Your task to perform on an android device: find snoozed emails in the gmail app Image 0: 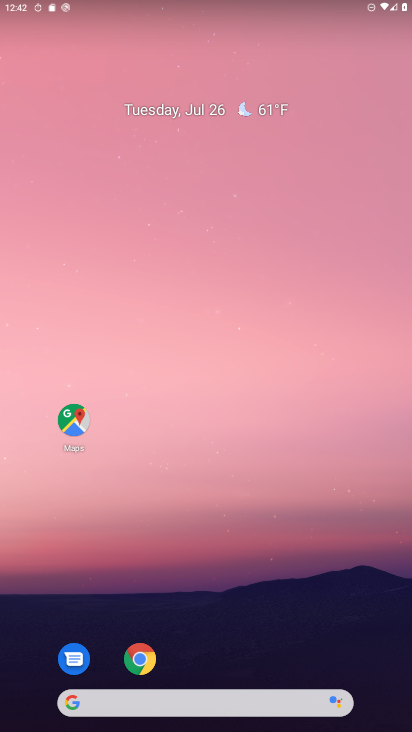
Step 0: drag from (158, 436) to (247, 135)
Your task to perform on an android device: find snoozed emails in the gmail app Image 1: 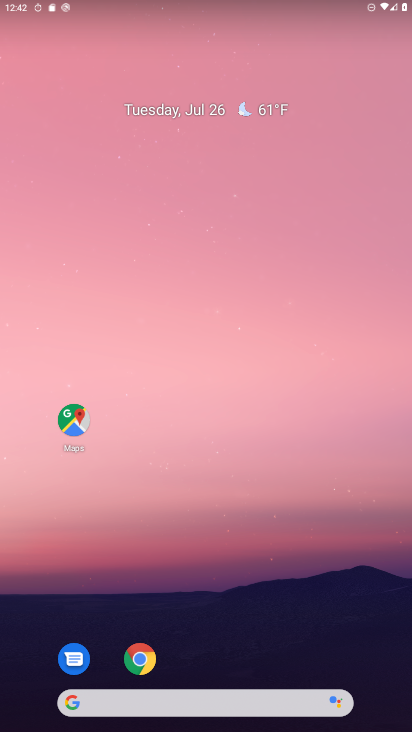
Step 1: drag from (21, 705) to (244, 1)
Your task to perform on an android device: find snoozed emails in the gmail app Image 2: 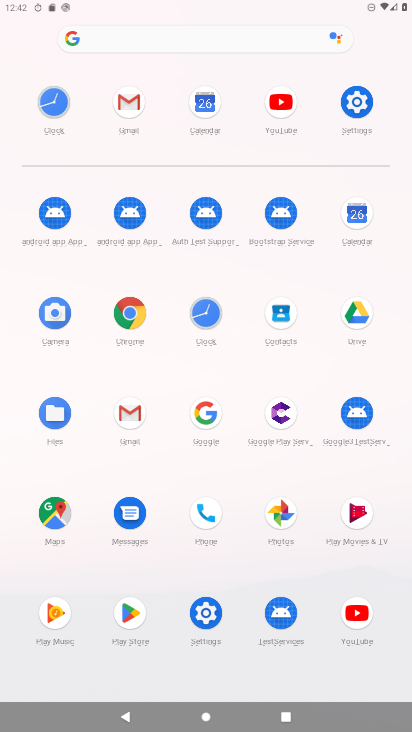
Step 2: click (218, 617)
Your task to perform on an android device: find snoozed emails in the gmail app Image 3: 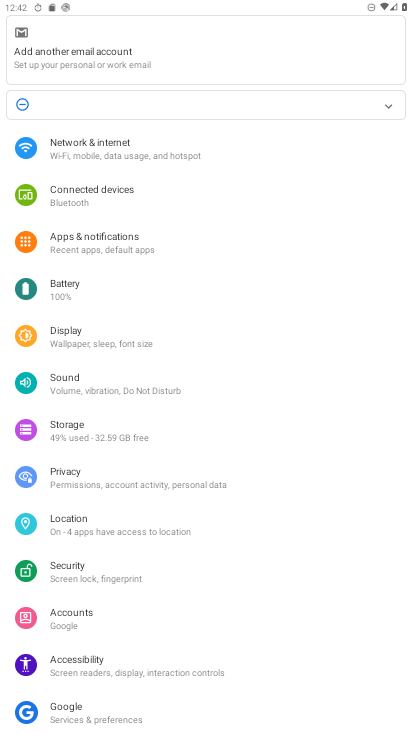
Step 3: press home button
Your task to perform on an android device: find snoozed emails in the gmail app Image 4: 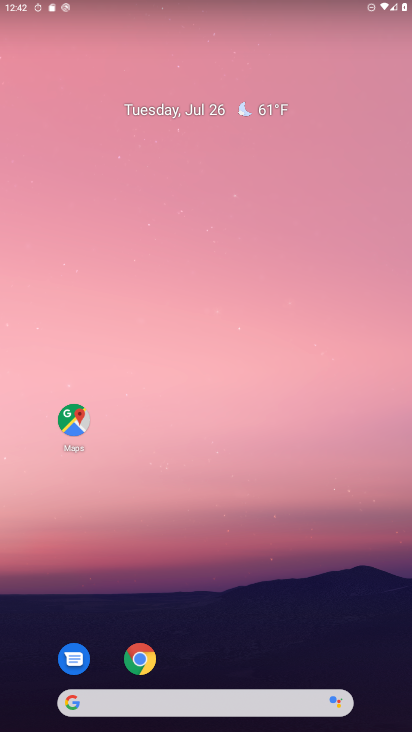
Step 4: drag from (19, 693) to (233, 201)
Your task to perform on an android device: find snoozed emails in the gmail app Image 5: 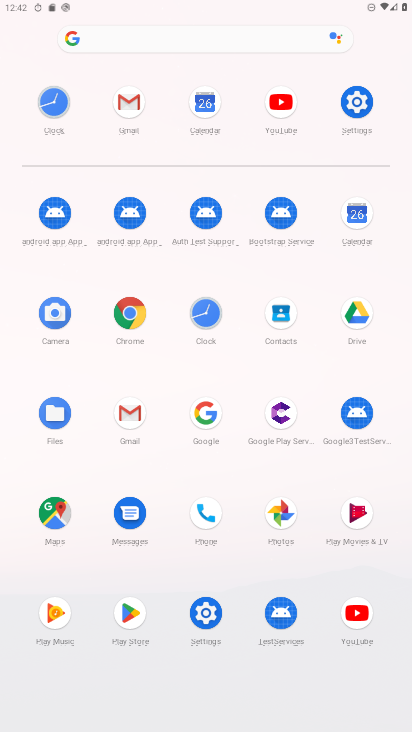
Step 5: click (128, 417)
Your task to perform on an android device: find snoozed emails in the gmail app Image 6: 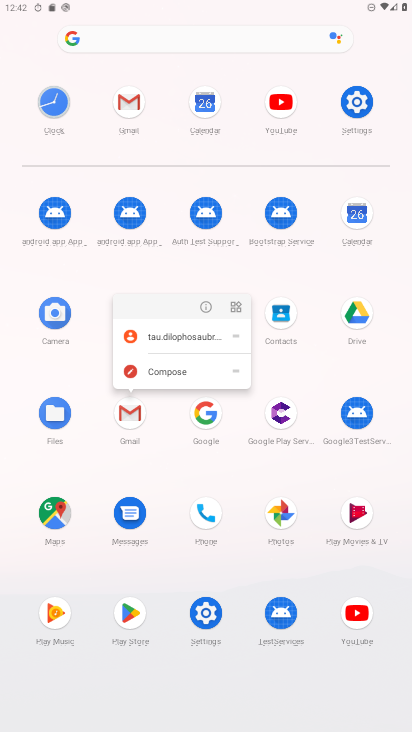
Step 6: click (128, 417)
Your task to perform on an android device: find snoozed emails in the gmail app Image 7: 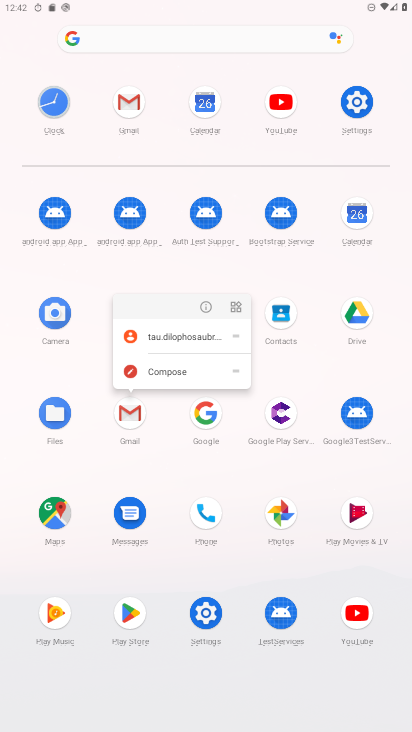
Step 7: click (128, 409)
Your task to perform on an android device: find snoozed emails in the gmail app Image 8: 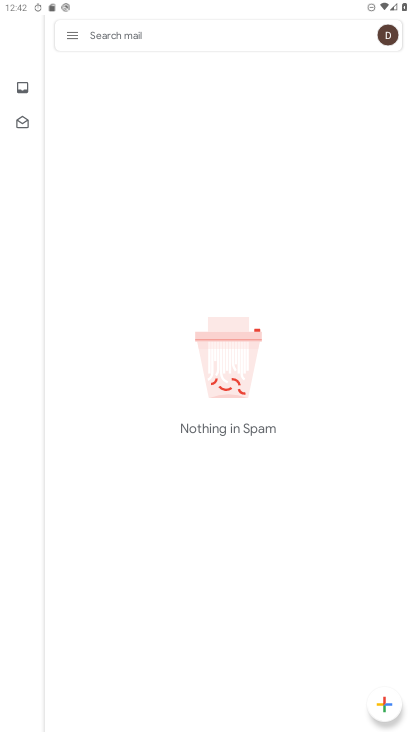
Step 8: click (72, 35)
Your task to perform on an android device: find snoozed emails in the gmail app Image 9: 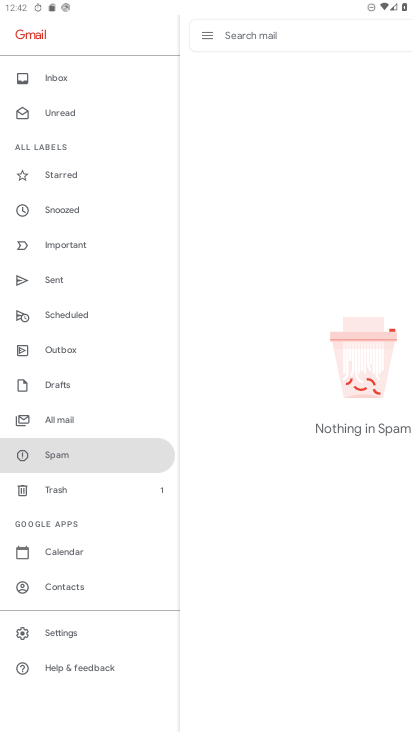
Step 9: click (72, 208)
Your task to perform on an android device: find snoozed emails in the gmail app Image 10: 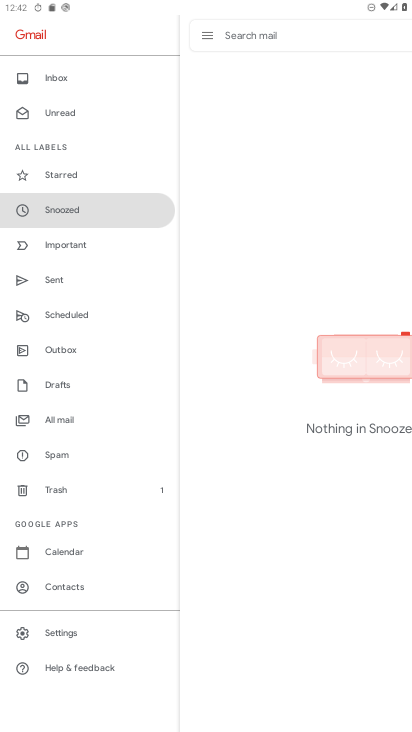
Step 10: task complete